Your task to perform on an android device: Open the phone app and click the voicemail tab. Image 0: 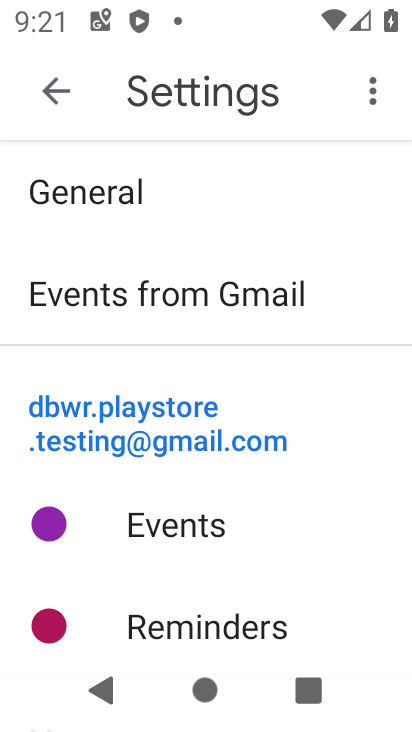
Step 0: press back button
Your task to perform on an android device: Open the phone app and click the voicemail tab. Image 1: 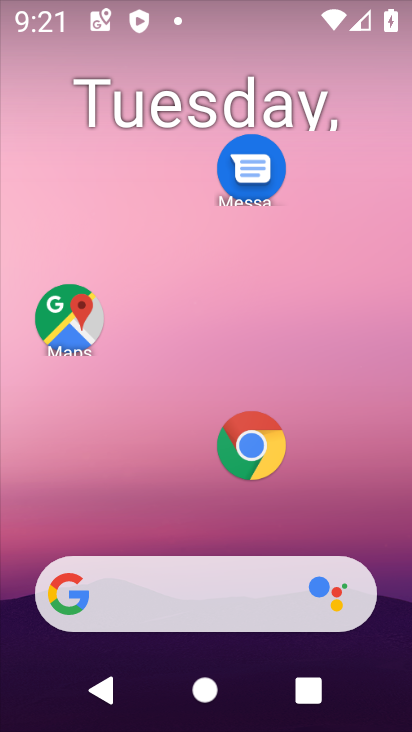
Step 1: drag from (211, 497) to (233, 99)
Your task to perform on an android device: Open the phone app and click the voicemail tab. Image 2: 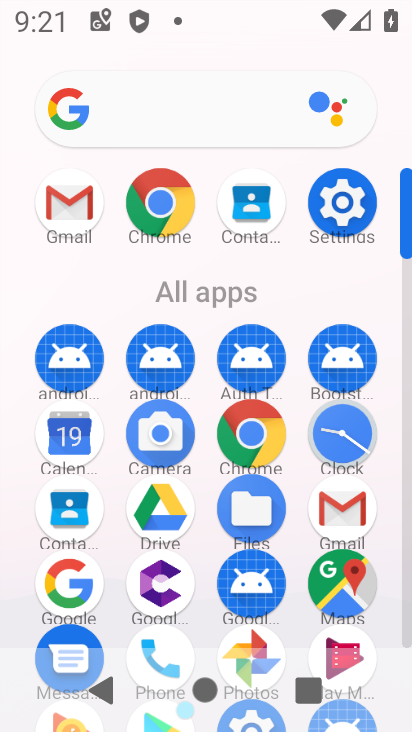
Step 2: drag from (184, 598) to (257, 110)
Your task to perform on an android device: Open the phone app and click the voicemail tab. Image 3: 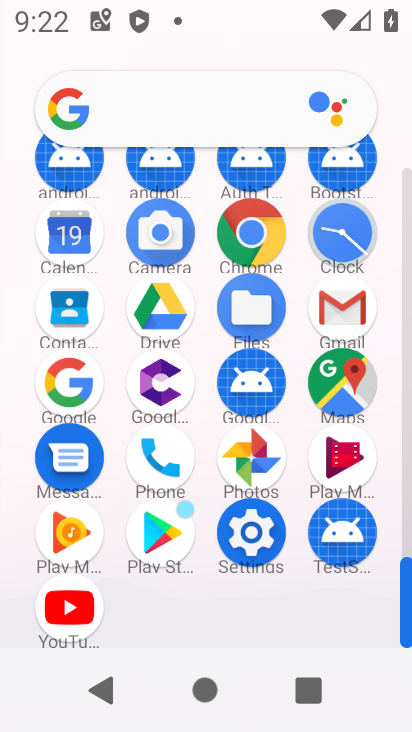
Step 3: click (163, 453)
Your task to perform on an android device: Open the phone app and click the voicemail tab. Image 4: 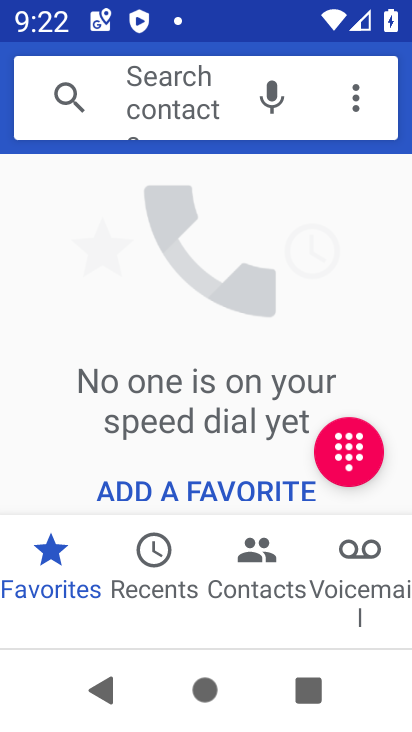
Step 4: click (364, 571)
Your task to perform on an android device: Open the phone app and click the voicemail tab. Image 5: 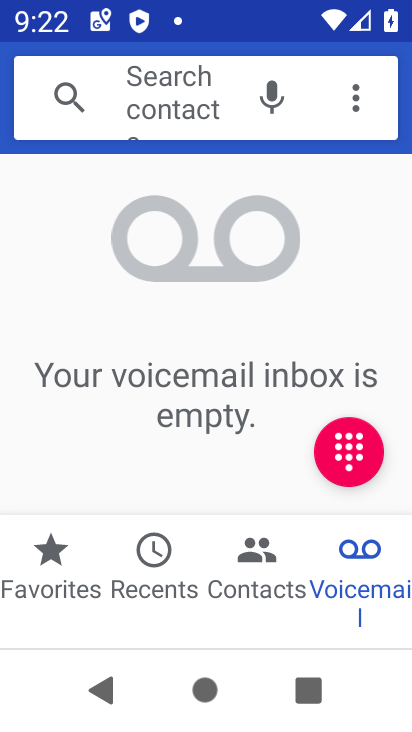
Step 5: task complete